Your task to perform on an android device: empty trash in google photos Image 0: 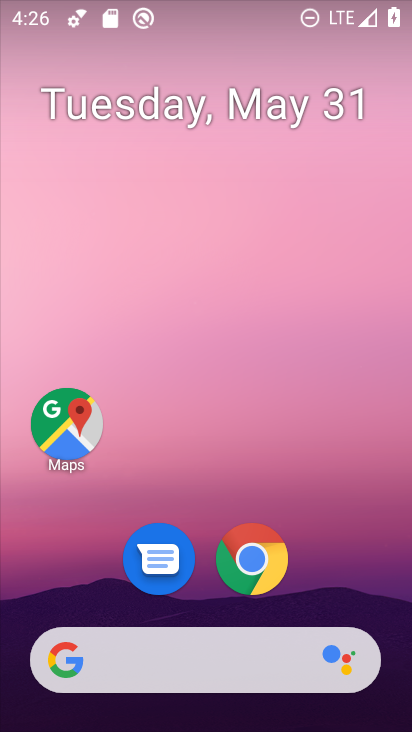
Step 0: drag from (238, 715) to (236, 69)
Your task to perform on an android device: empty trash in google photos Image 1: 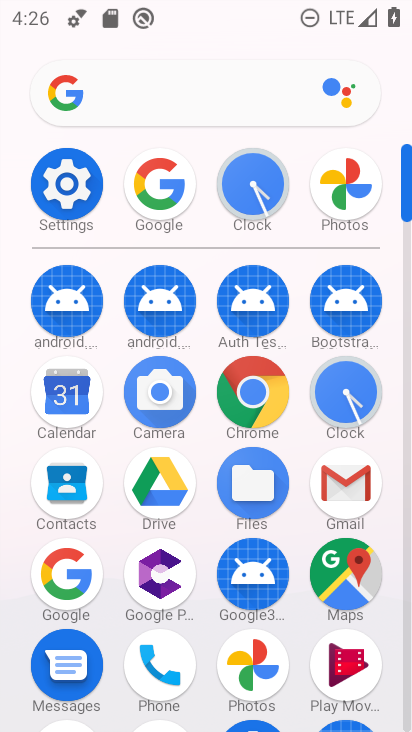
Step 1: click (246, 660)
Your task to perform on an android device: empty trash in google photos Image 2: 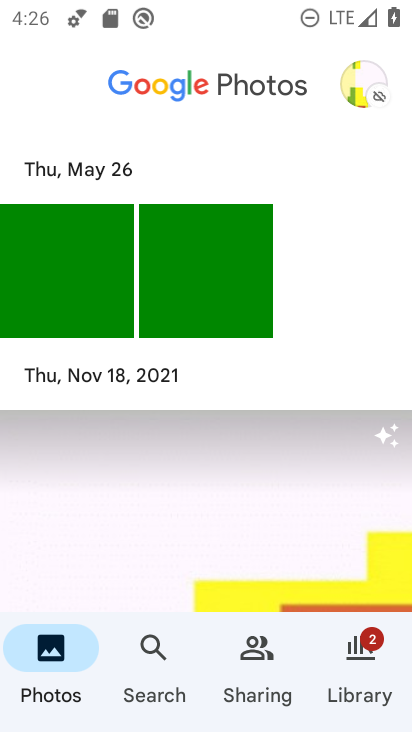
Step 2: click (361, 644)
Your task to perform on an android device: empty trash in google photos Image 3: 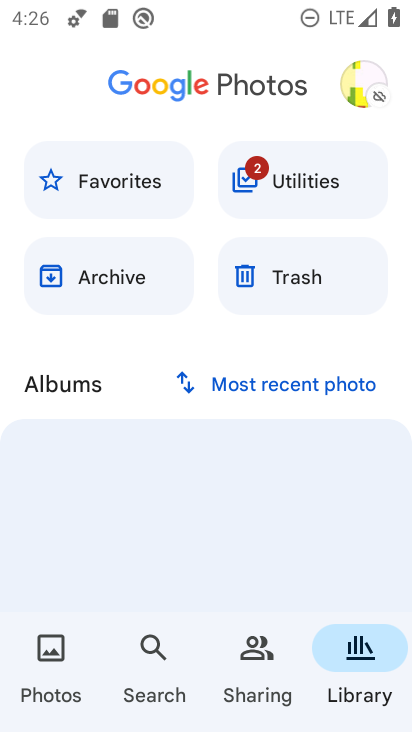
Step 3: click (293, 274)
Your task to perform on an android device: empty trash in google photos Image 4: 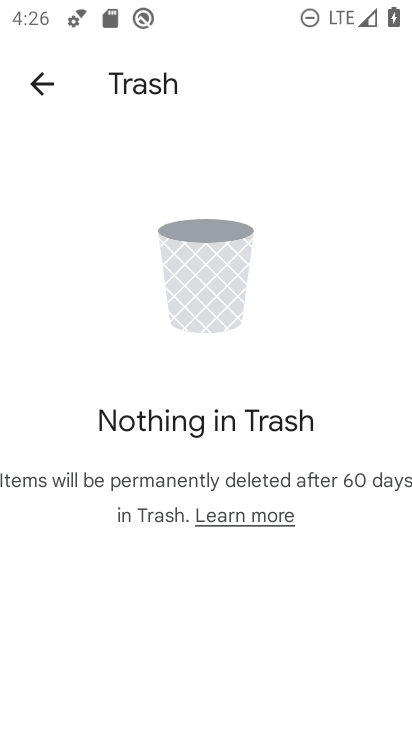
Step 4: task complete